Your task to perform on an android device: Open Google Chrome and open the bookmarks view Image 0: 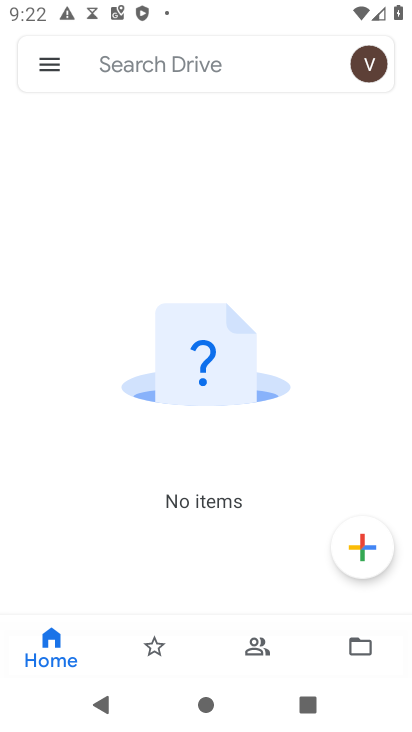
Step 0: press home button
Your task to perform on an android device: Open Google Chrome and open the bookmarks view Image 1: 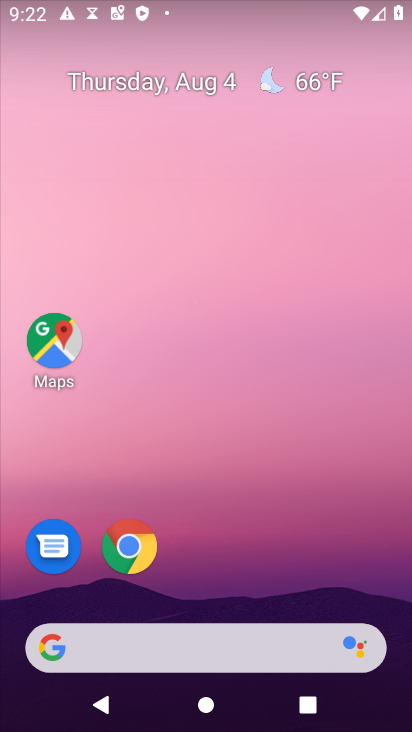
Step 1: click (127, 546)
Your task to perform on an android device: Open Google Chrome and open the bookmarks view Image 2: 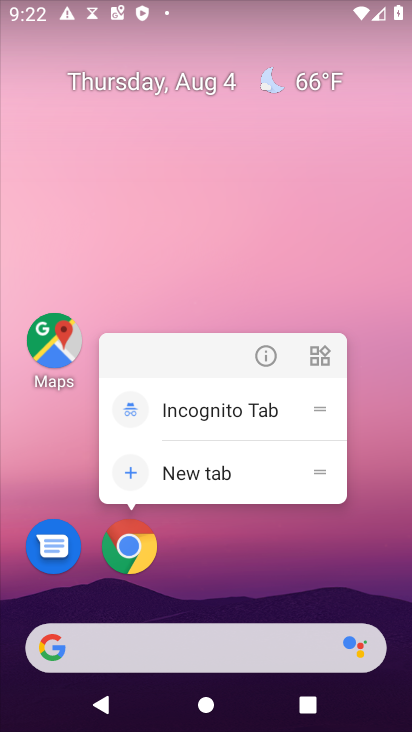
Step 2: click (119, 549)
Your task to perform on an android device: Open Google Chrome and open the bookmarks view Image 3: 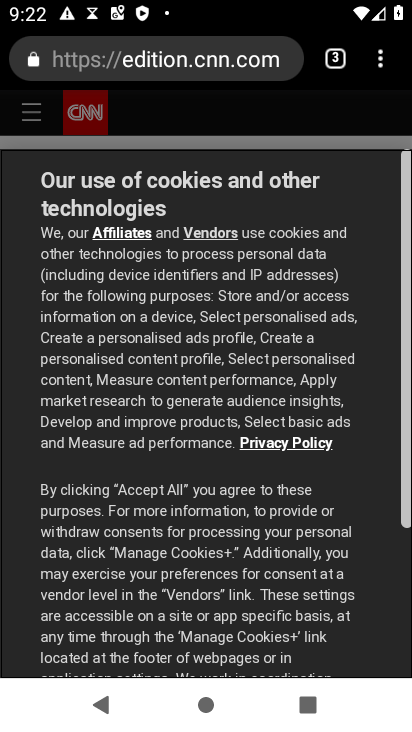
Step 3: task complete